Your task to perform on an android device: move a message to another label in the gmail app Image 0: 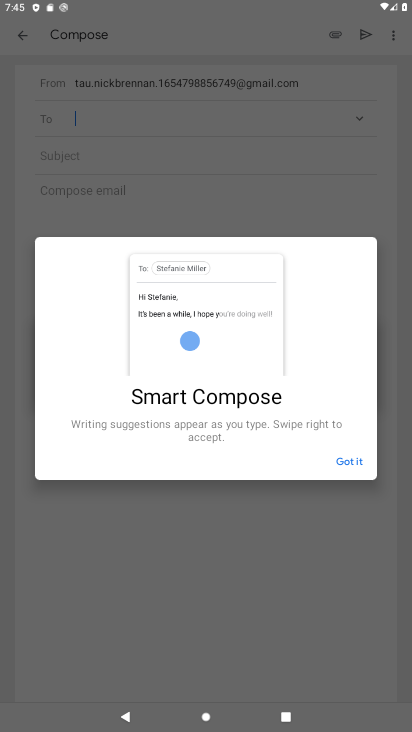
Step 0: press home button
Your task to perform on an android device: move a message to another label in the gmail app Image 1: 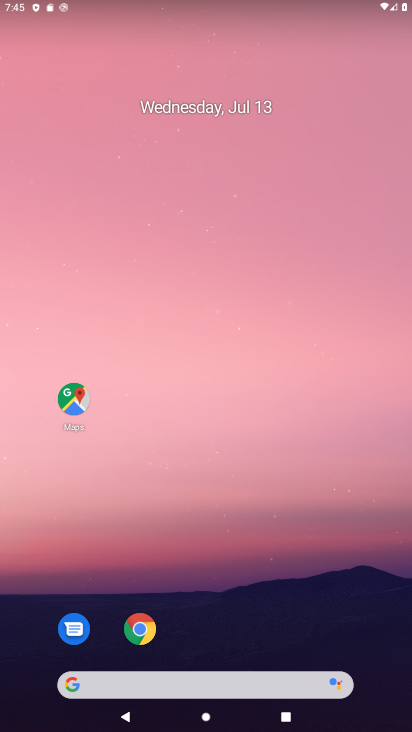
Step 1: drag from (310, 636) to (371, 10)
Your task to perform on an android device: move a message to another label in the gmail app Image 2: 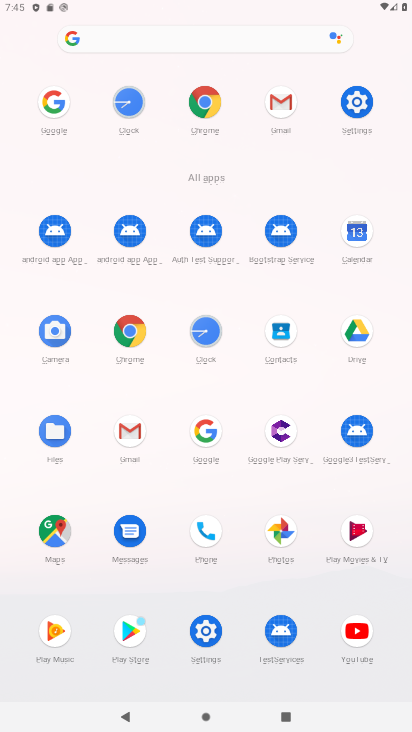
Step 2: click (280, 140)
Your task to perform on an android device: move a message to another label in the gmail app Image 3: 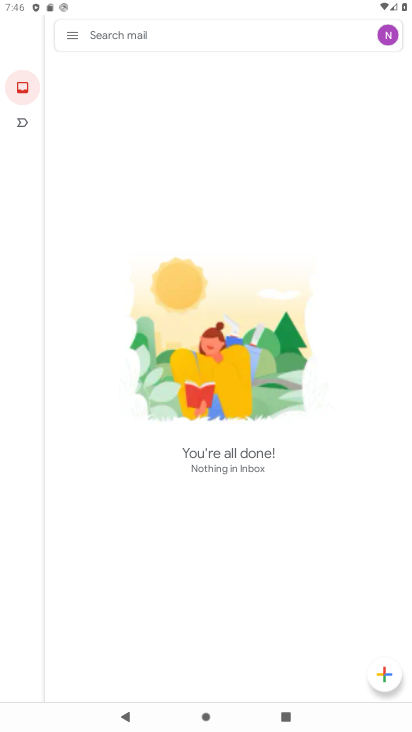
Step 3: task complete